Your task to perform on an android device: Open Google Maps Image 0: 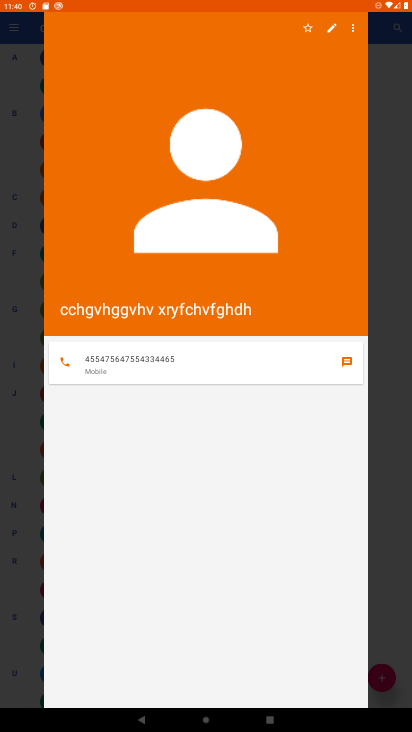
Step 0: press home button
Your task to perform on an android device: Open Google Maps Image 1: 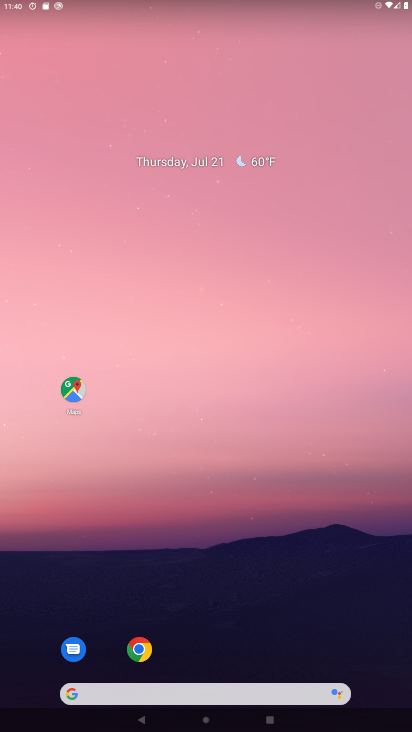
Step 1: click (66, 391)
Your task to perform on an android device: Open Google Maps Image 2: 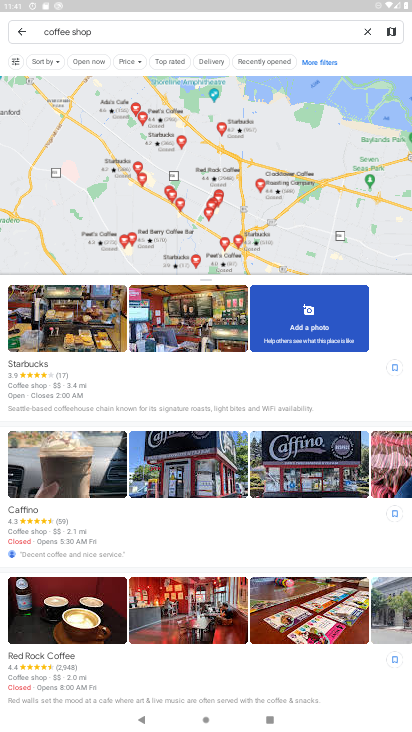
Step 2: task complete